Your task to perform on an android device: Go to Android settings Image 0: 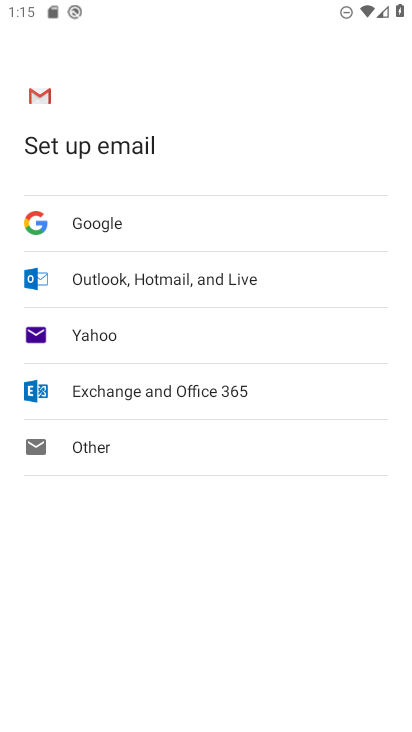
Step 0: press home button
Your task to perform on an android device: Go to Android settings Image 1: 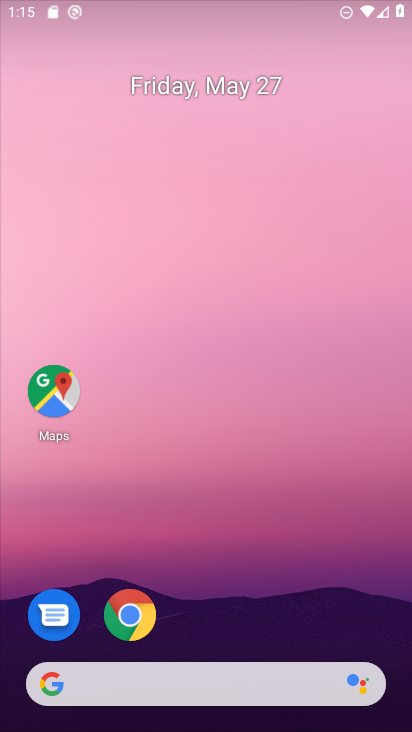
Step 1: drag from (270, 584) to (297, 173)
Your task to perform on an android device: Go to Android settings Image 2: 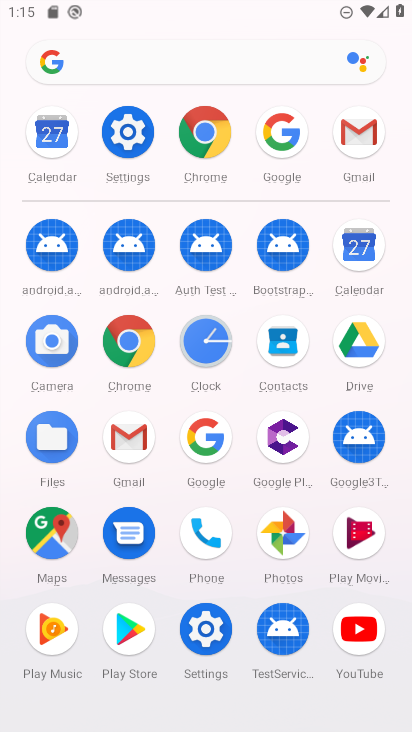
Step 2: click (220, 635)
Your task to perform on an android device: Go to Android settings Image 3: 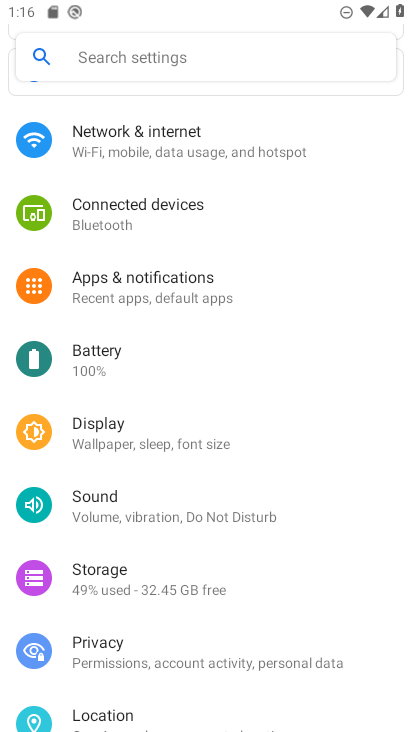
Step 3: task complete